Your task to perform on an android device: open the mobile data screen to see how much data has been used Image 0: 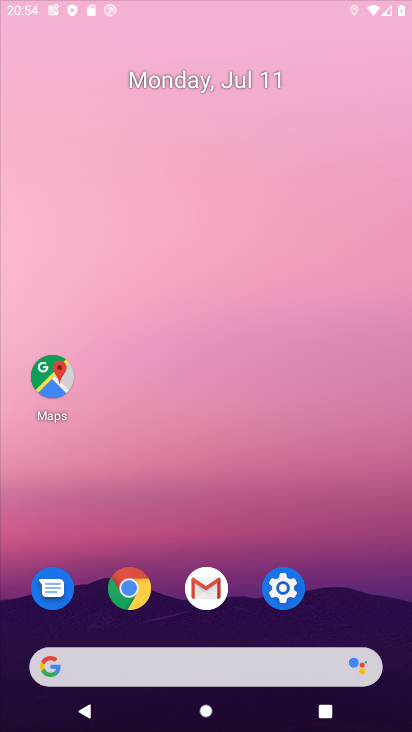
Step 0: press home button
Your task to perform on an android device: open the mobile data screen to see how much data has been used Image 1: 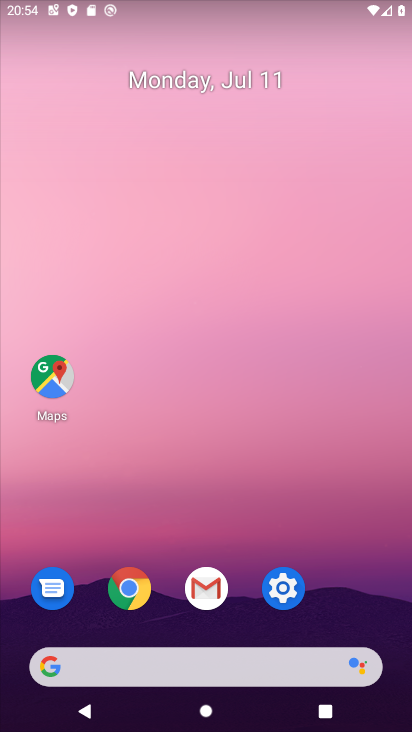
Step 1: click (287, 579)
Your task to perform on an android device: open the mobile data screen to see how much data has been used Image 2: 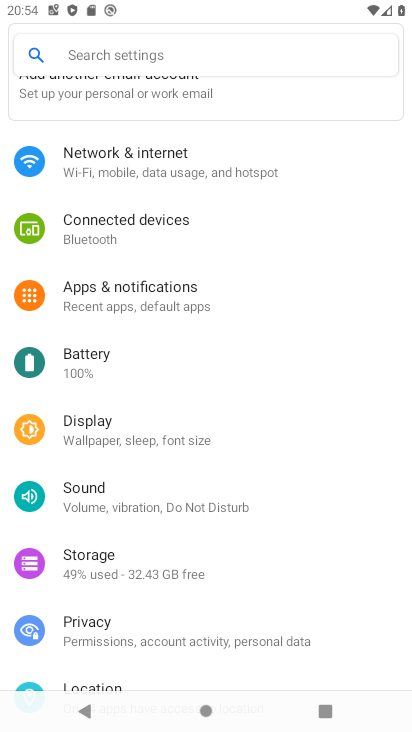
Step 2: click (121, 46)
Your task to perform on an android device: open the mobile data screen to see how much data has been used Image 3: 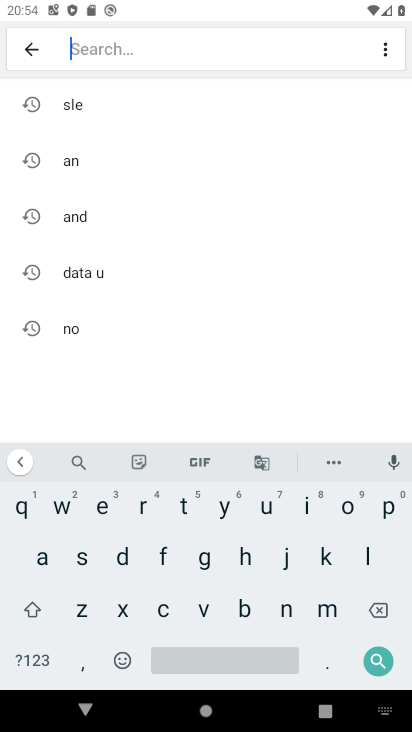
Step 3: click (95, 279)
Your task to perform on an android device: open the mobile data screen to see how much data has been used Image 4: 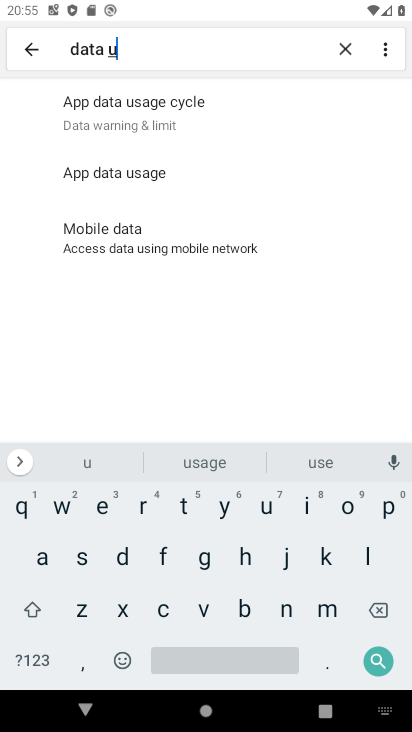
Step 4: click (105, 244)
Your task to perform on an android device: open the mobile data screen to see how much data has been used Image 5: 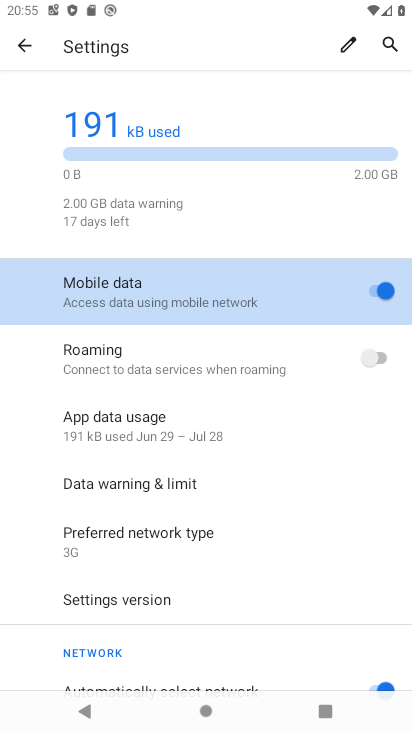
Step 5: click (161, 431)
Your task to perform on an android device: open the mobile data screen to see how much data has been used Image 6: 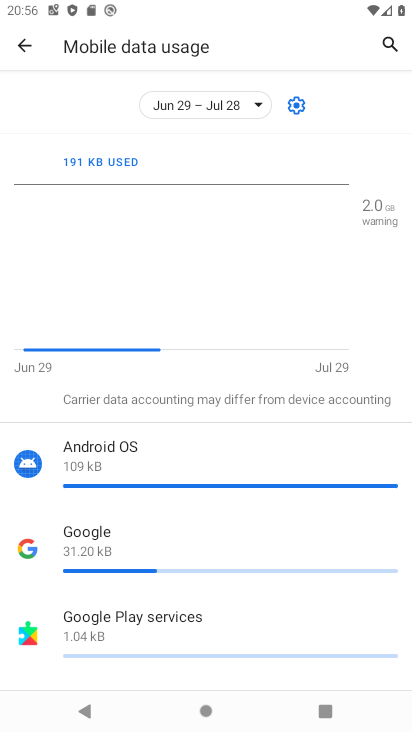
Step 6: task complete